Your task to perform on an android device: Open Youtube and go to "Your channel" Image 0: 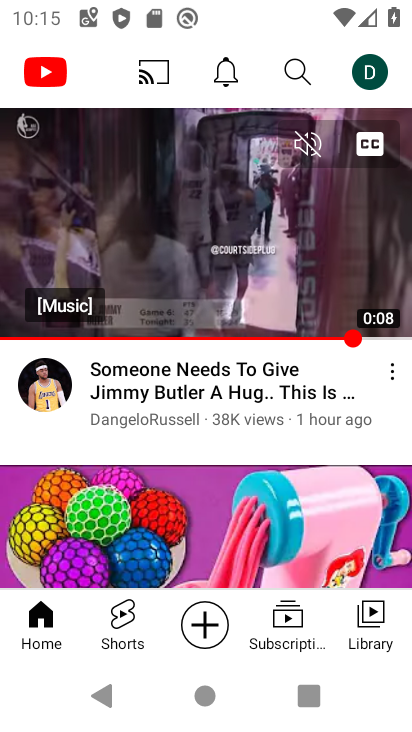
Step 0: click (374, 79)
Your task to perform on an android device: Open Youtube and go to "Your channel" Image 1: 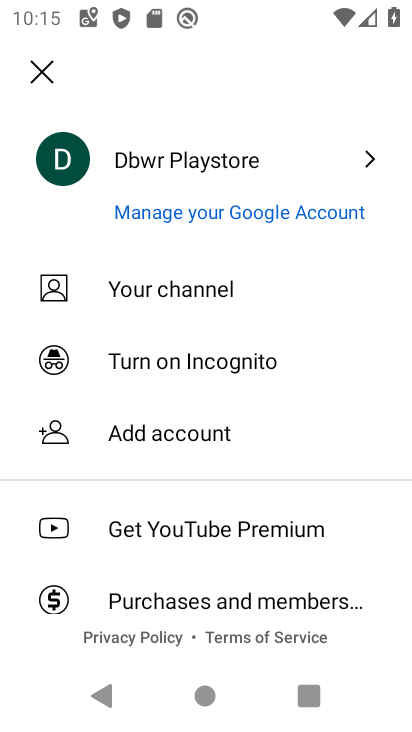
Step 1: click (158, 281)
Your task to perform on an android device: Open Youtube and go to "Your channel" Image 2: 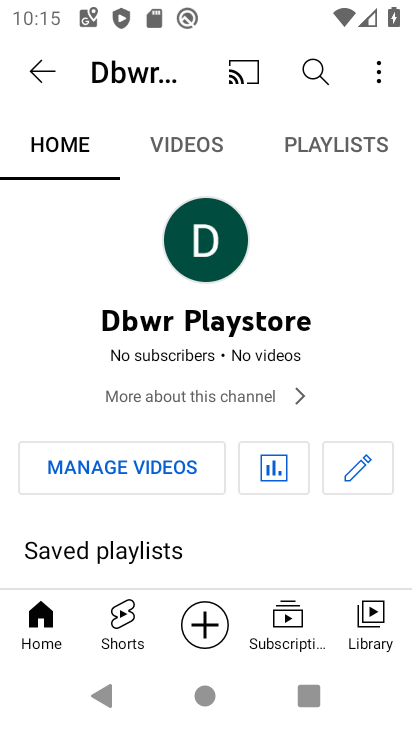
Step 2: task complete